Your task to perform on an android device: open app "Booking.com: Hotels and more" (install if not already installed) and go to login screen Image 0: 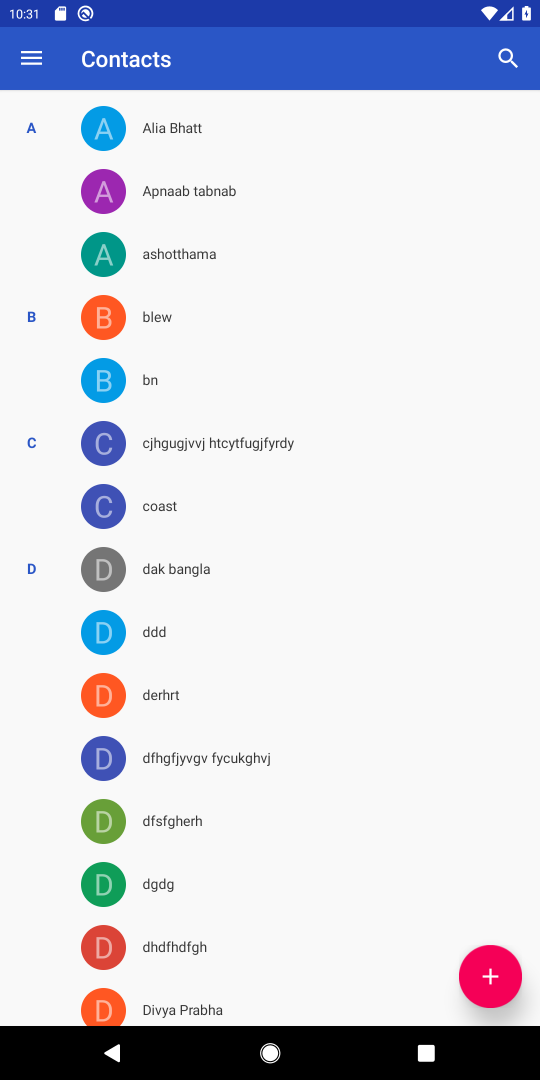
Step 0: task impossible